Your task to perform on an android device: open a bookmark in the chrome app Image 0: 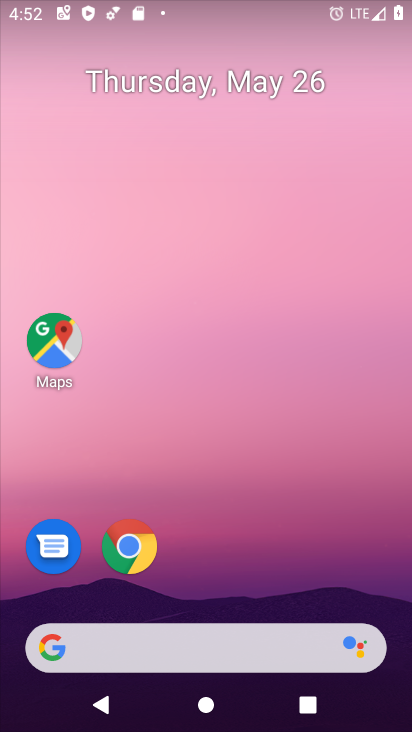
Step 0: click (120, 520)
Your task to perform on an android device: open a bookmark in the chrome app Image 1: 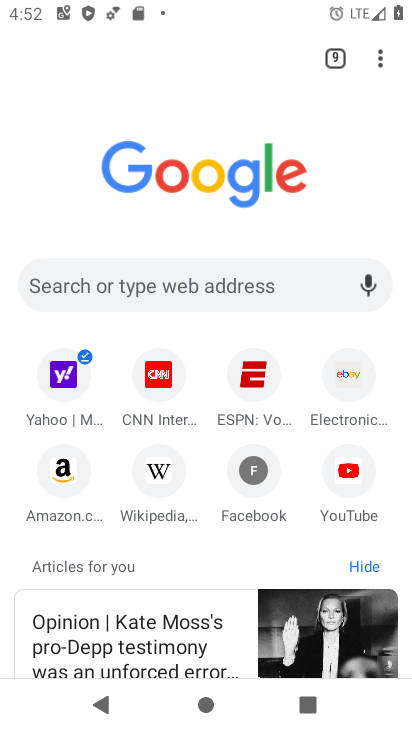
Step 1: task complete